Your task to perform on an android device: delete a single message in the gmail app Image 0: 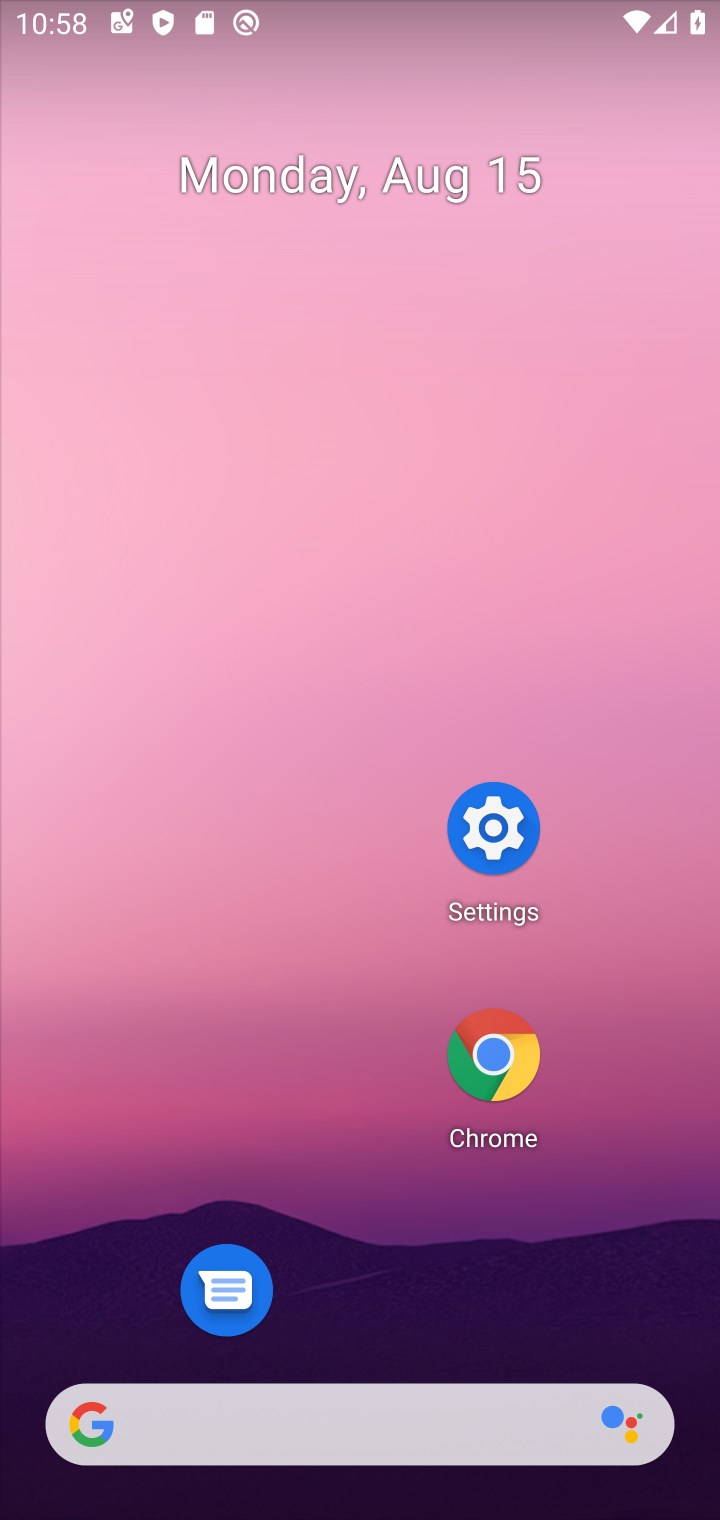
Step 0: press home button
Your task to perform on an android device: delete a single message in the gmail app Image 1: 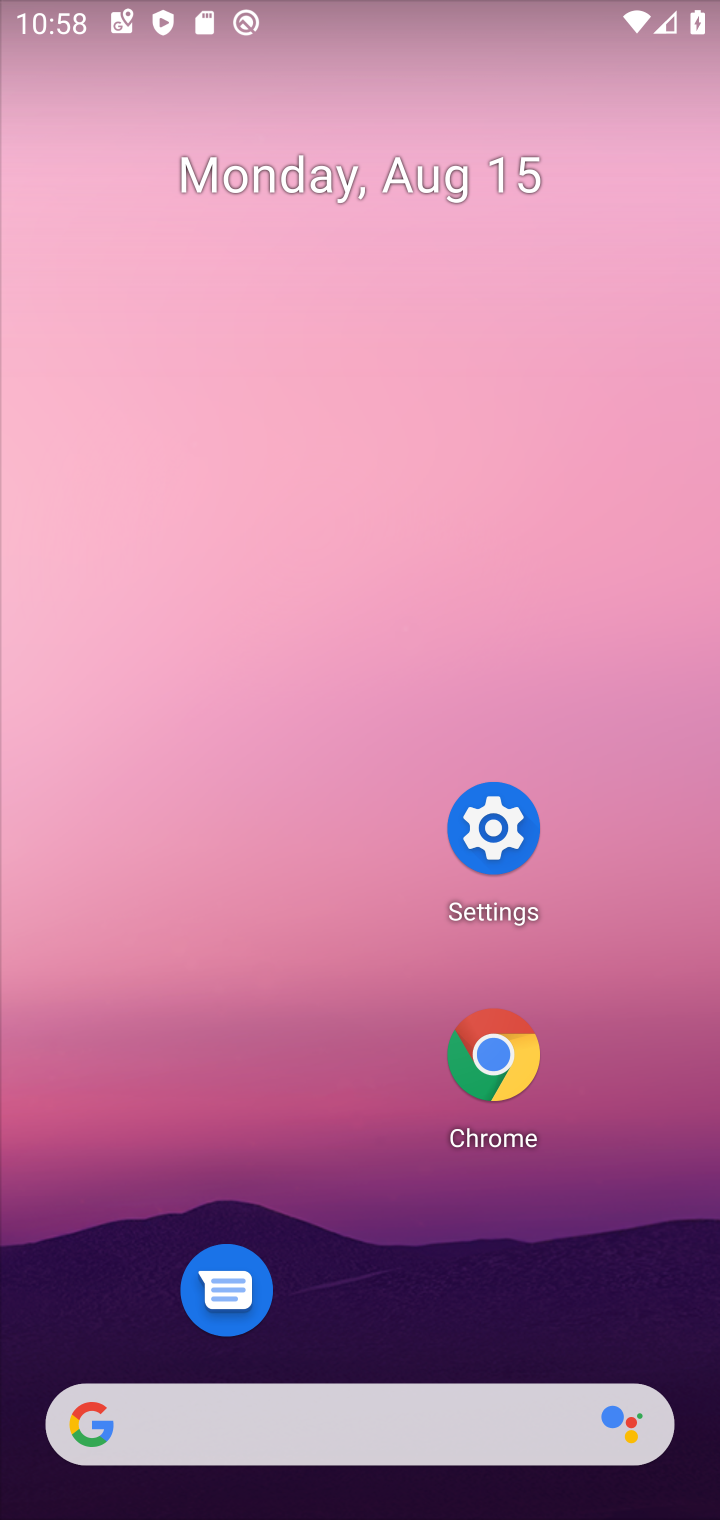
Step 1: drag from (398, 1050) to (543, 186)
Your task to perform on an android device: delete a single message in the gmail app Image 2: 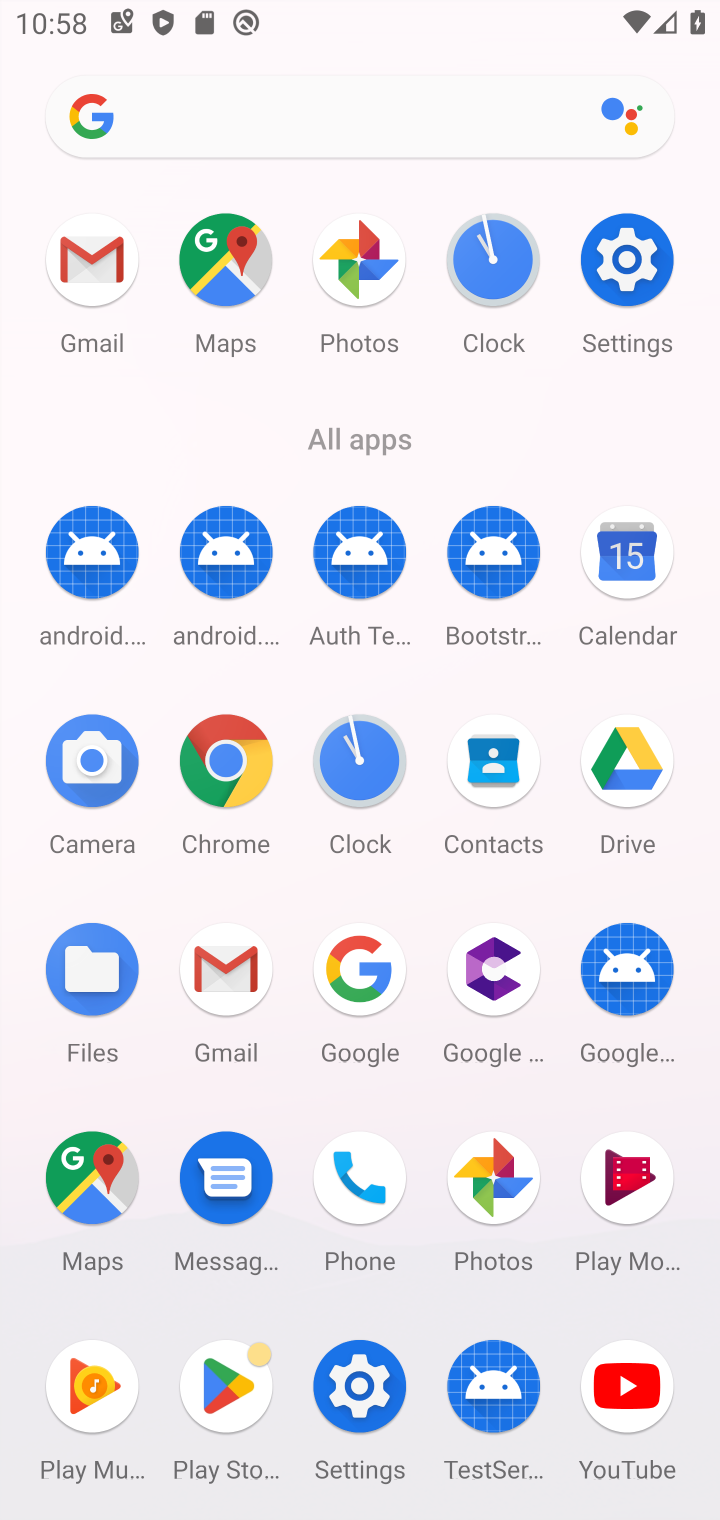
Step 2: click (94, 275)
Your task to perform on an android device: delete a single message in the gmail app Image 3: 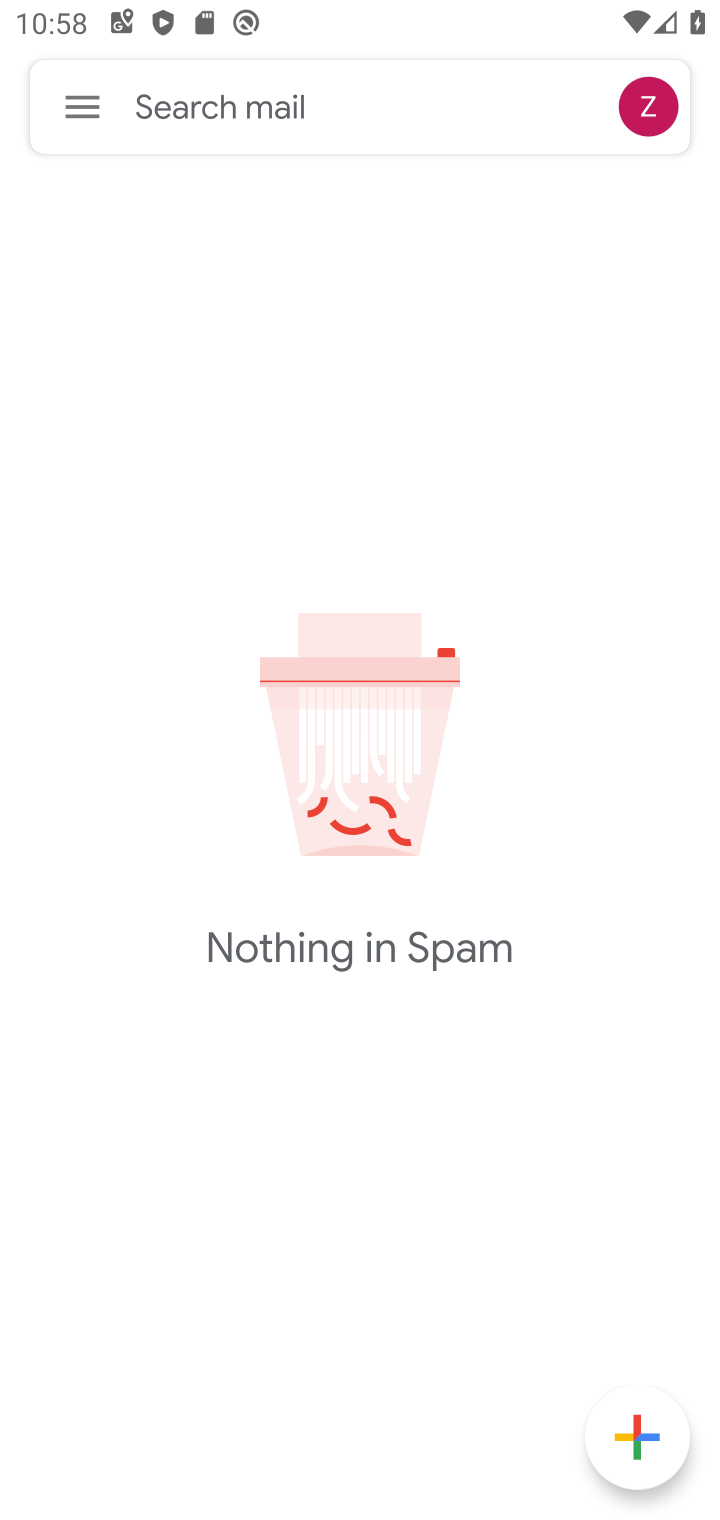
Step 3: click (86, 107)
Your task to perform on an android device: delete a single message in the gmail app Image 4: 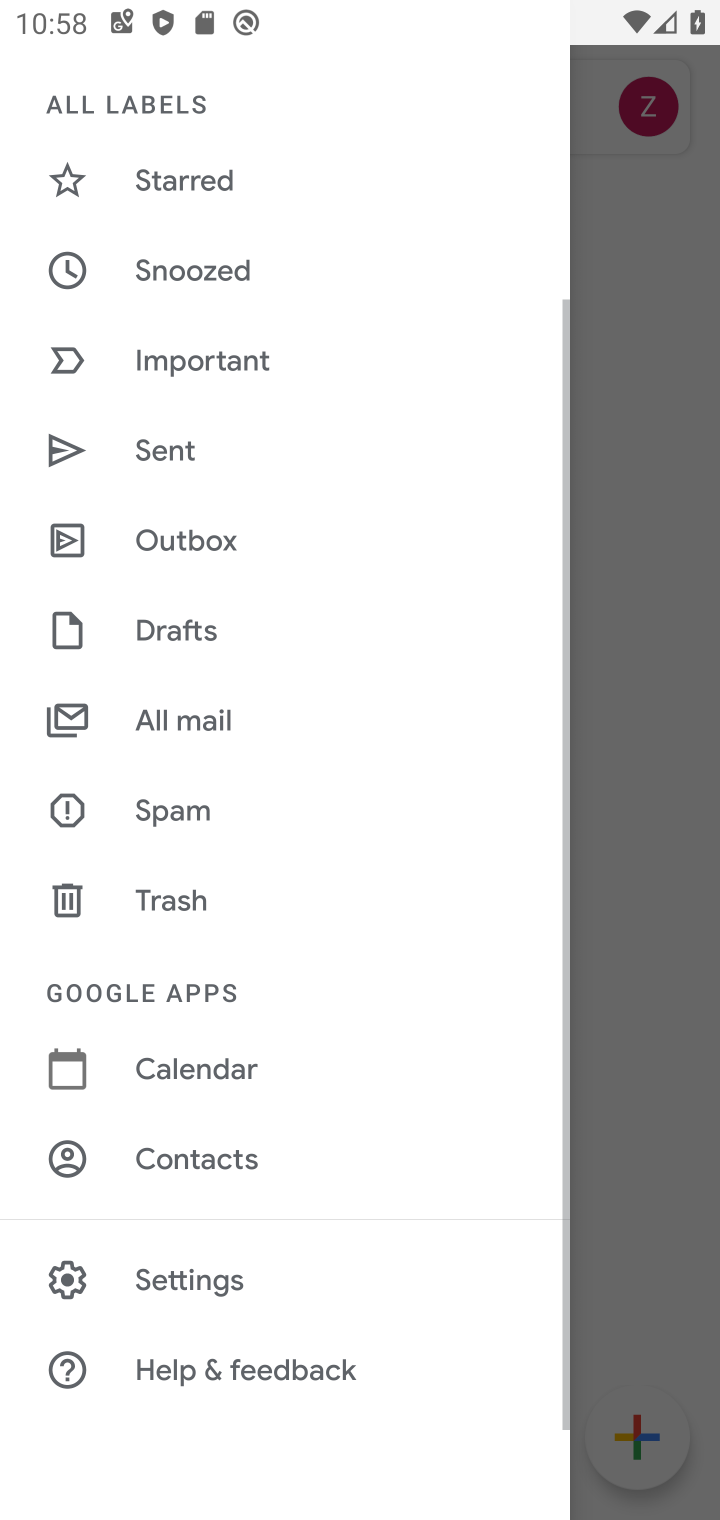
Step 4: click (228, 716)
Your task to perform on an android device: delete a single message in the gmail app Image 5: 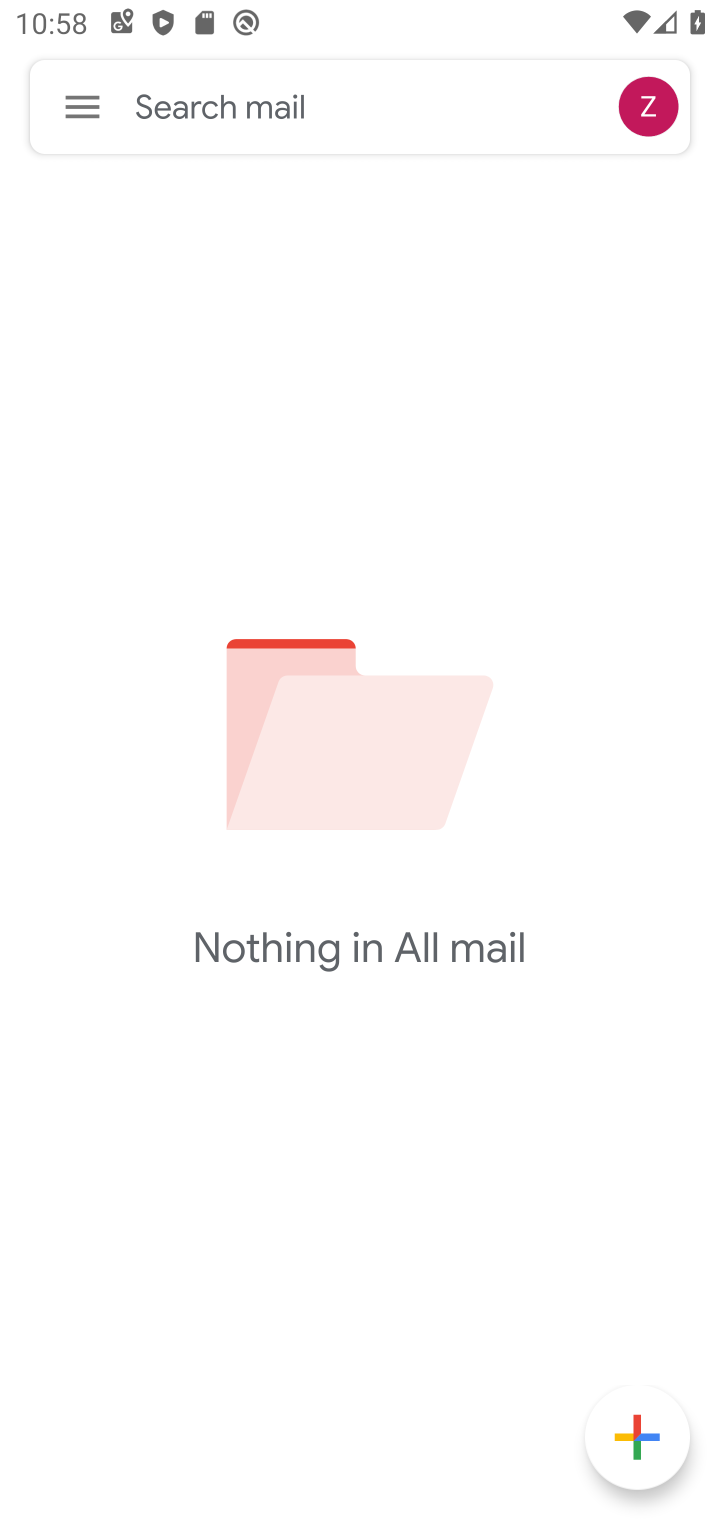
Step 5: task complete